Your task to perform on an android device: delete browsing data in the chrome app Image 0: 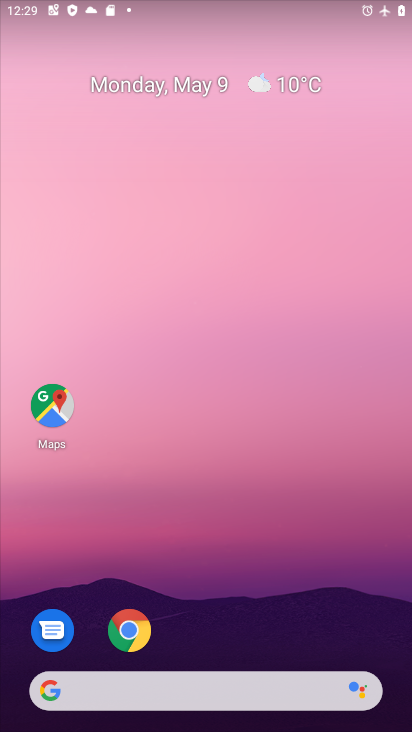
Step 0: drag from (317, 585) to (306, 134)
Your task to perform on an android device: delete browsing data in the chrome app Image 1: 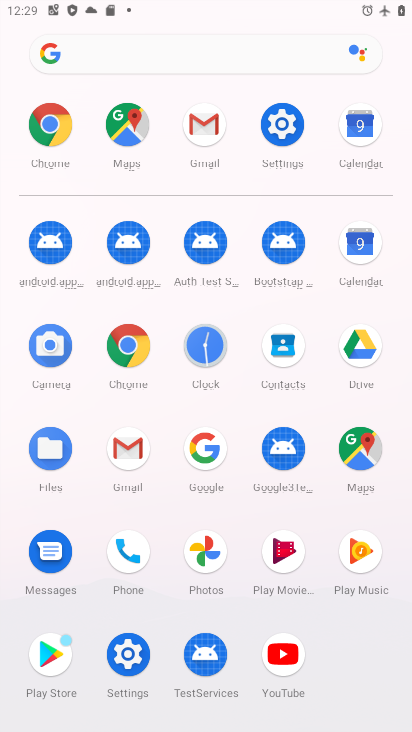
Step 1: click (54, 134)
Your task to perform on an android device: delete browsing data in the chrome app Image 2: 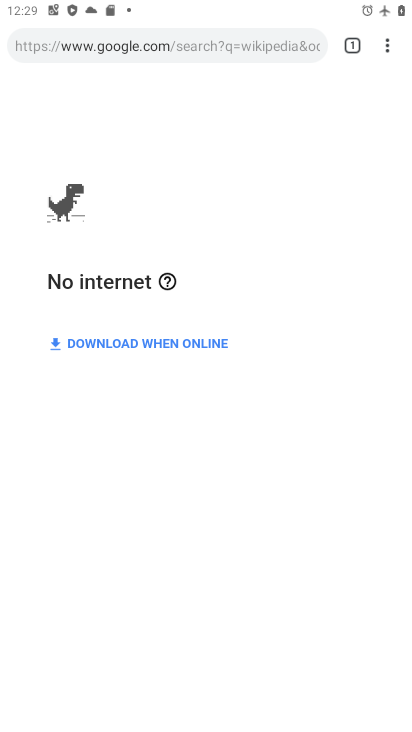
Step 2: click (383, 44)
Your task to perform on an android device: delete browsing data in the chrome app Image 3: 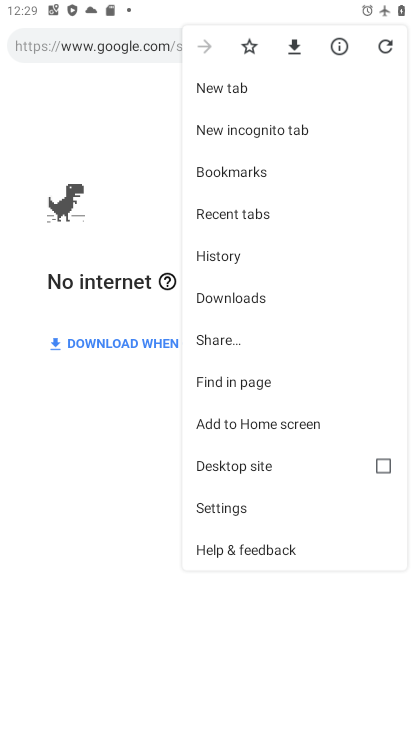
Step 3: click (262, 252)
Your task to perform on an android device: delete browsing data in the chrome app Image 4: 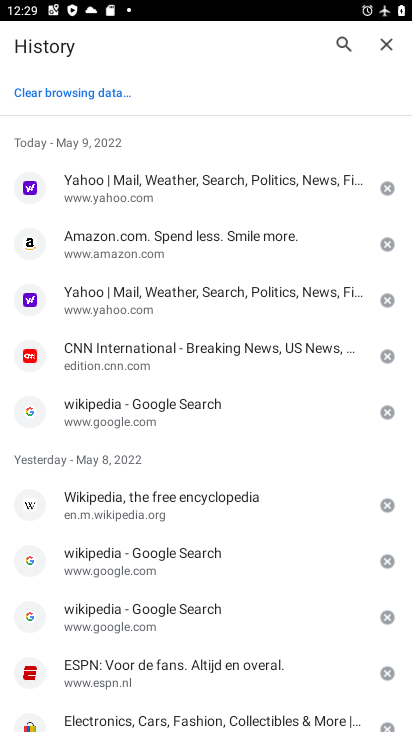
Step 4: click (93, 87)
Your task to perform on an android device: delete browsing data in the chrome app Image 5: 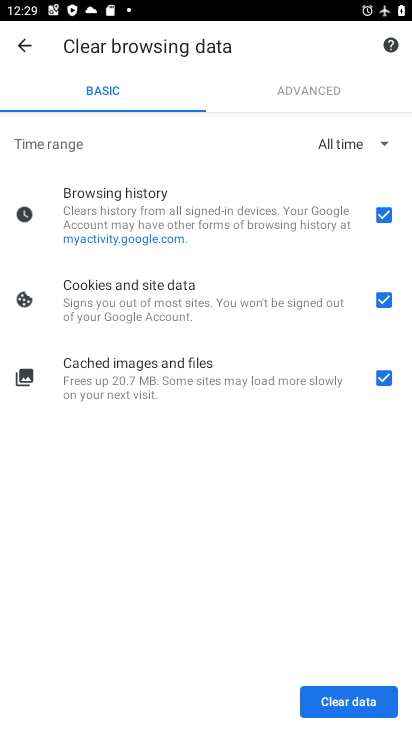
Step 5: click (337, 703)
Your task to perform on an android device: delete browsing data in the chrome app Image 6: 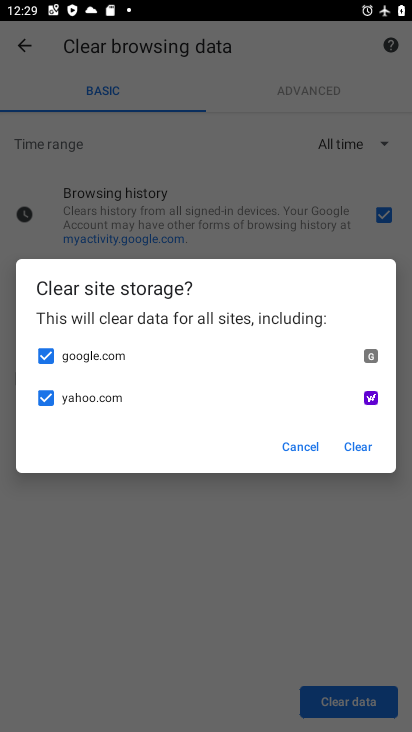
Step 6: click (358, 449)
Your task to perform on an android device: delete browsing data in the chrome app Image 7: 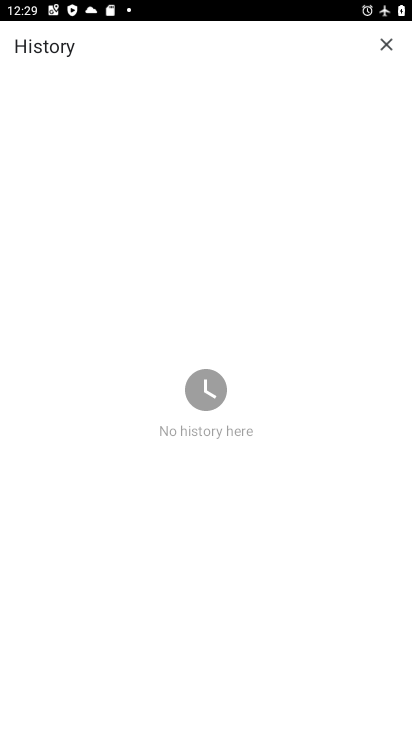
Step 7: task complete